Your task to perform on an android device: change notification settings in the gmail app Image 0: 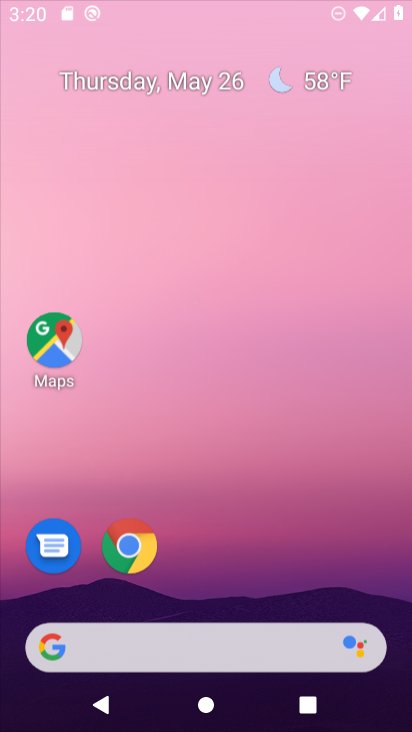
Step 0: press home button
Your task to perform on an android device: change notification settings in the gmail app Image 1: 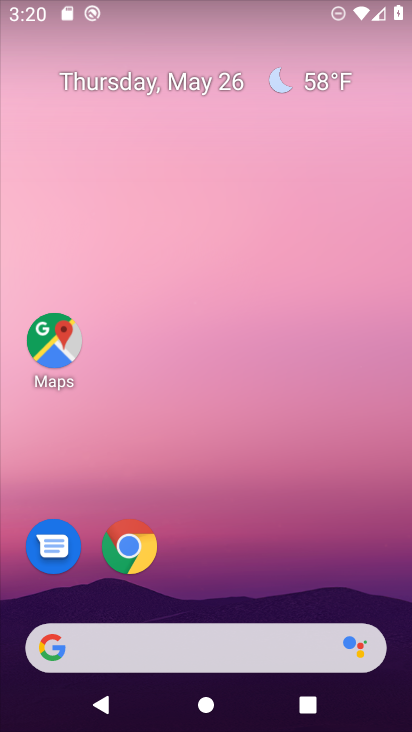
Step 1: drag from (213, 610) to (226, 67)
Your task to perform on an android device: change notification settings in the gmail app Image 2: 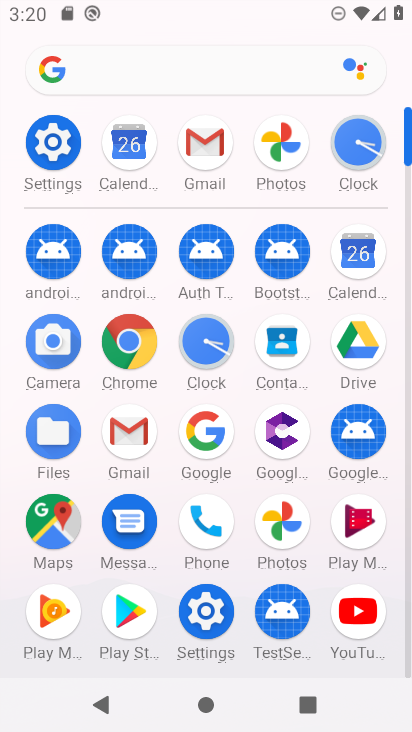
Step 2: click (198, 135)
Your task to perform on an android device: change notification settings in the gmail app Image 3: 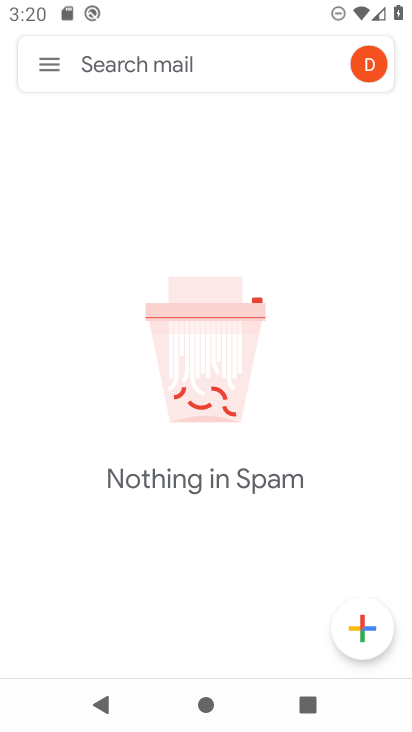
Step 3: click (46, 62)
Your task to perform on an android device: change notification settings in the gmail app Image 4: 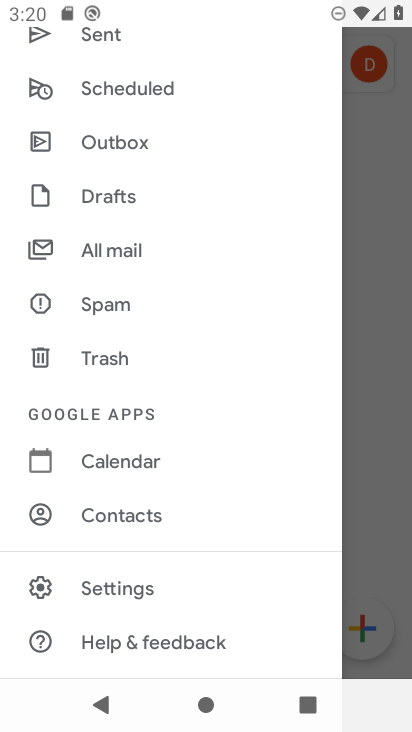
Step 4: click (164, 583)
Your task to perform on an android device: change notification settings in the gmail app Image 5: 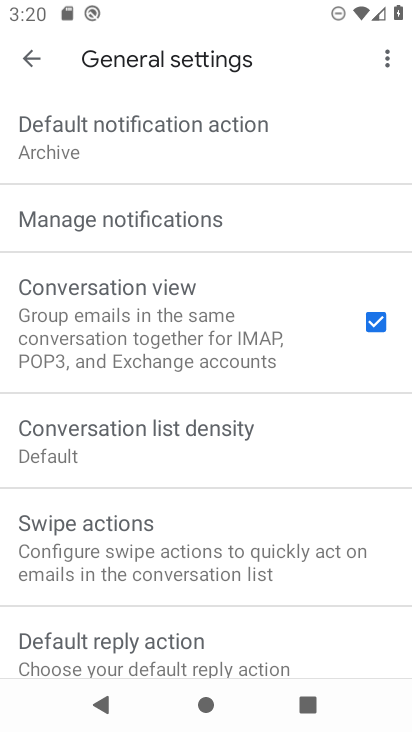
Step 5: click (237, 222)
Your task to perform on an android device: change notification settings in the gmail app Image 6: 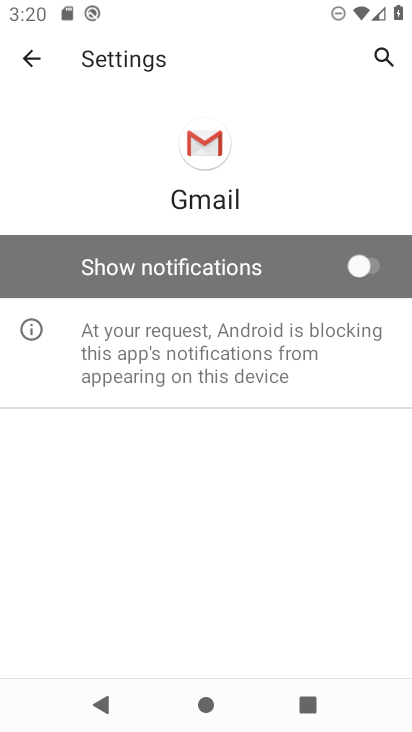
Step 6: click (373, 266)
Your task to perform on an android device: change notification settings in the gmail app Image 7: 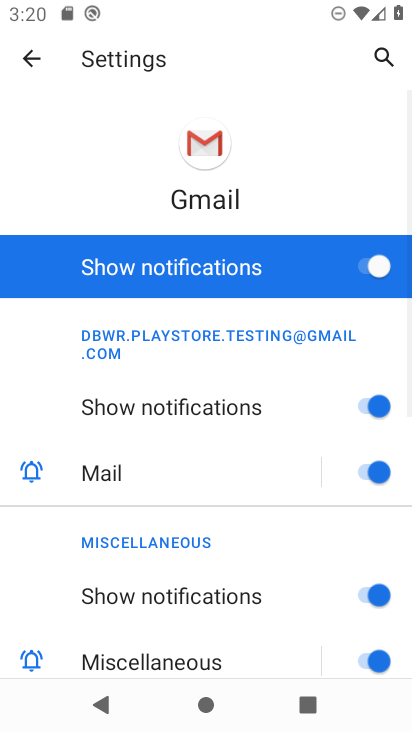
Step 7: task complete